Your task to perform on an android device: open a bookmark in the chrome app Image 0: 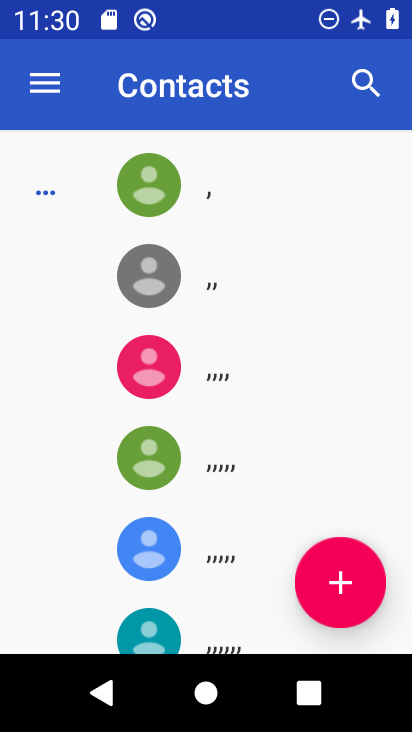
Step 0: press home button
Your task to perform on an android device: open a bookmark in the chrome app Image 1: 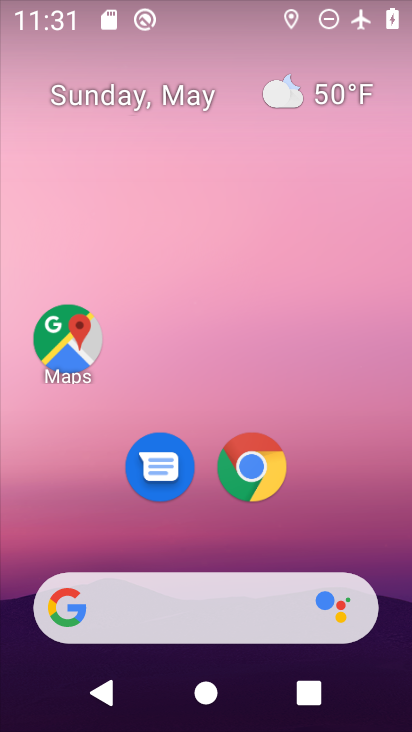
Step 1: click (236, 479)
Your task to perform on an android device: open a bookmark in the chrome app Image 2: 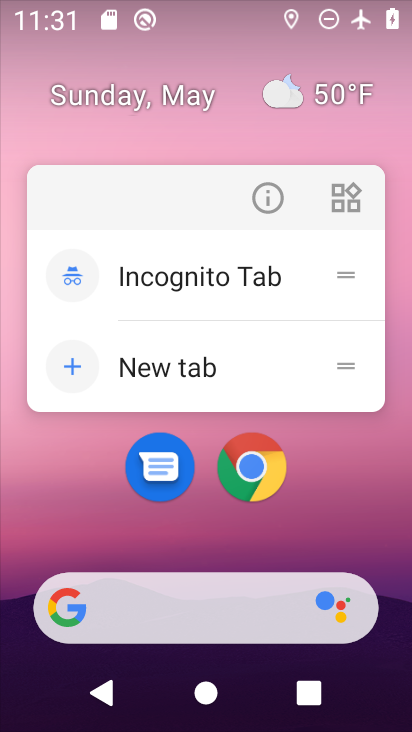
Step 2: click (267, 453)
Your task to perform on an android device: open a bookmark in the chrome app Image 3: 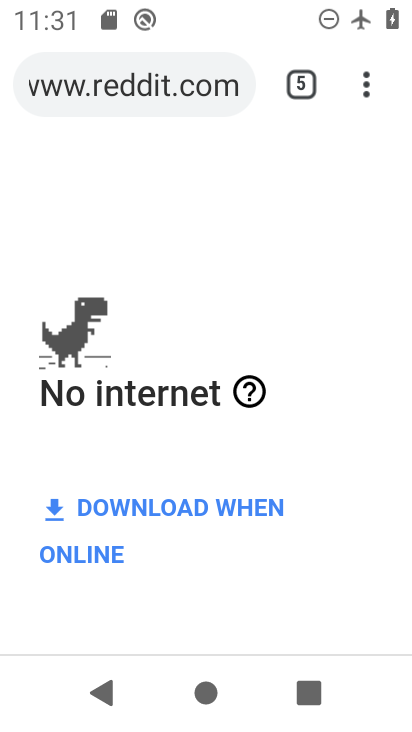
Step 3: drag from (367, 85) to (101, 322)
Your task to perform on an android device: open a bookmark in the chrome app Image 4: 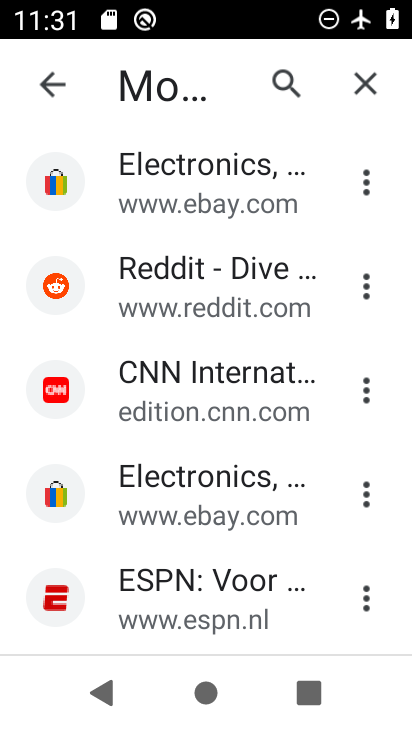
Step 4: click (197, 304)
Your task to perform on an android device: open a bookmark in the chrome app Image 5: 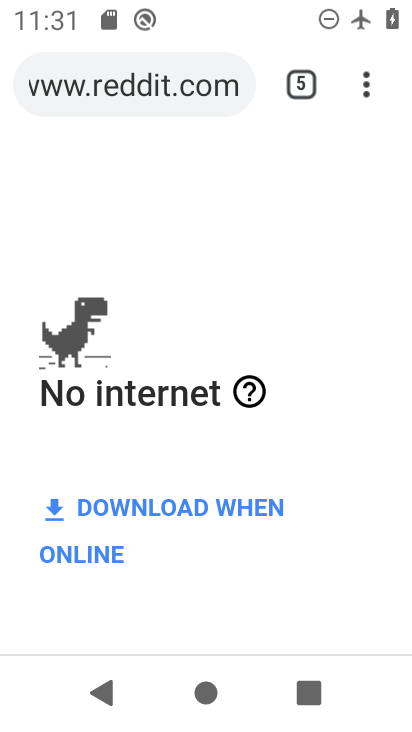
Step 5: task complete